Your task to perform on an android device: toggle sleep mode Image 0: 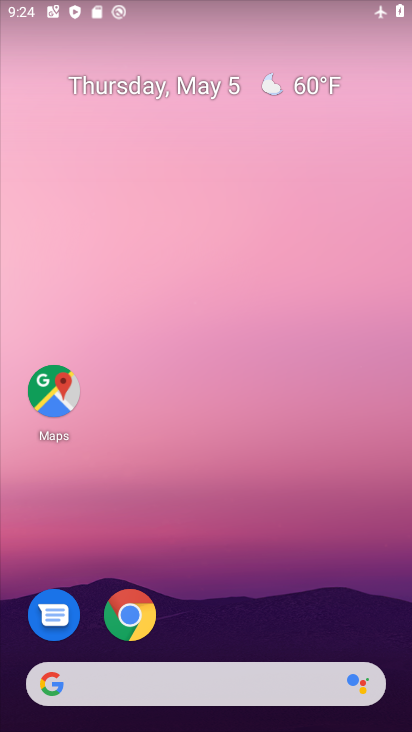
Step 0: drag from (220, 597) to (226, 179)
Your task to perform on an android device: toggle sleep mode Image 1: 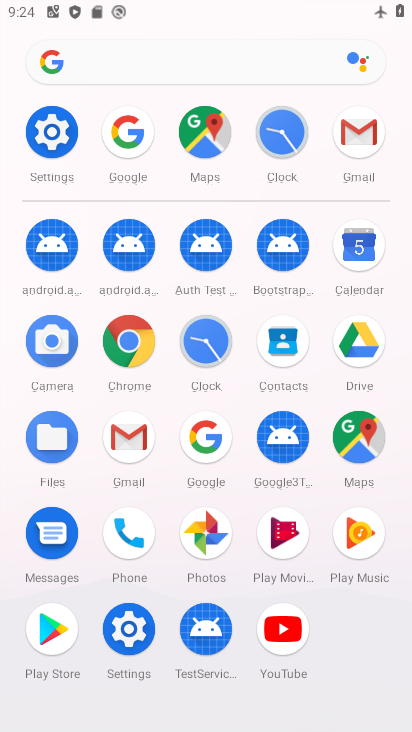
Step 1: click (54, 134)
Your task to perform on an android device: toggle sleep mode Image 2: 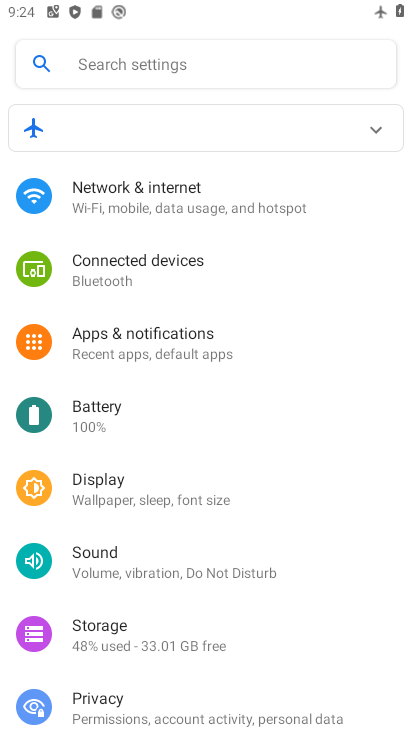
Step 2: click (161, 499)
Your task to perform on an android device: toggle sleep mode Image 3: 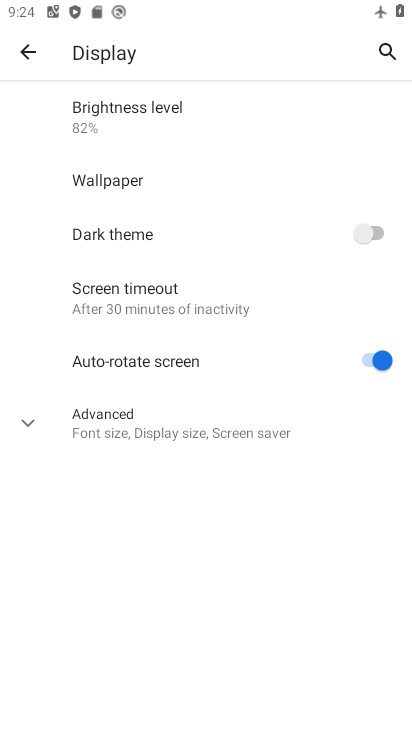
Step 3: click (156, 281)
Your task to perform on an android device: toggle sleep mode Image 4: 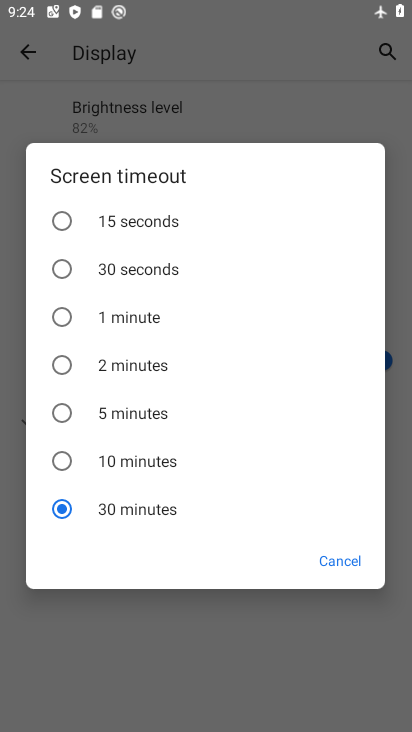
Step 4: click (63, 319)
Your task to perform on an android device: toggle sleep mode Image 5: 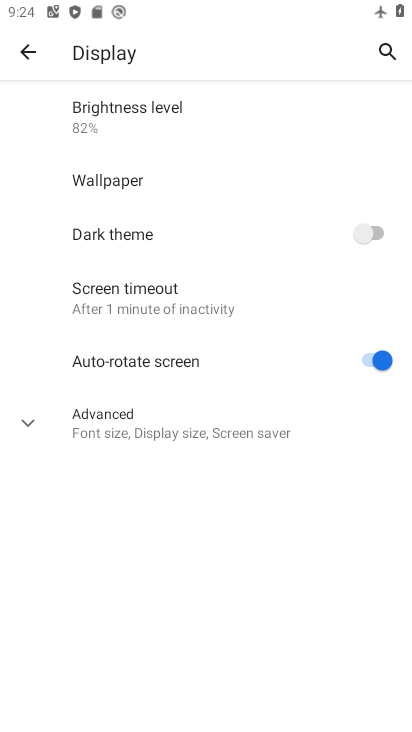
Step 5: task complete